Your task to perform on an android device: Open CNN.com Image 0: 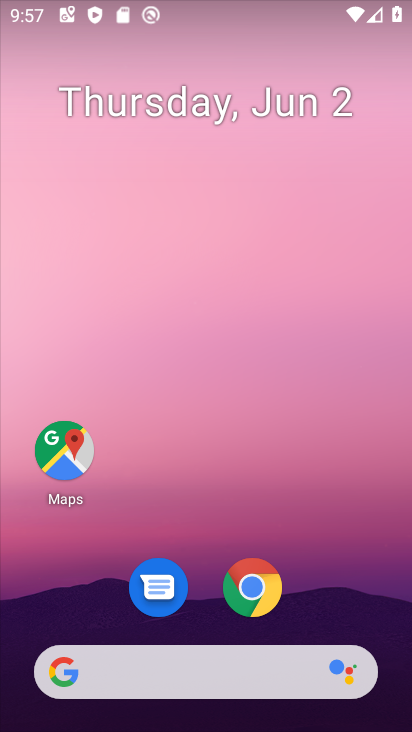
Step 0: click (271, 600)
Your task to perform on an android device: Open CNN.com Image 1: 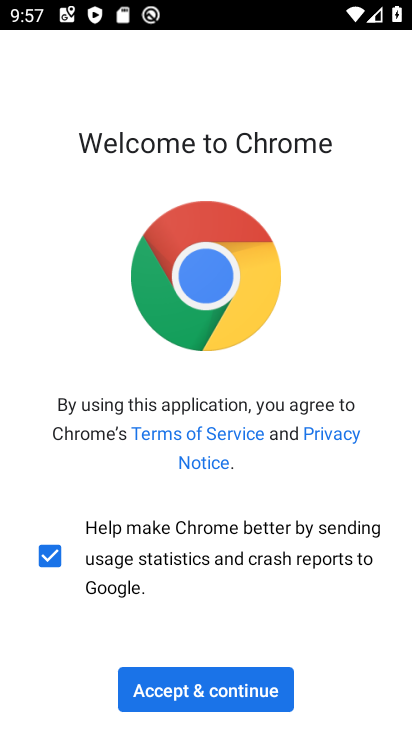
Step 1: click (239, 680)
Your task to perform on an android device: Open CNN.com Image 2: 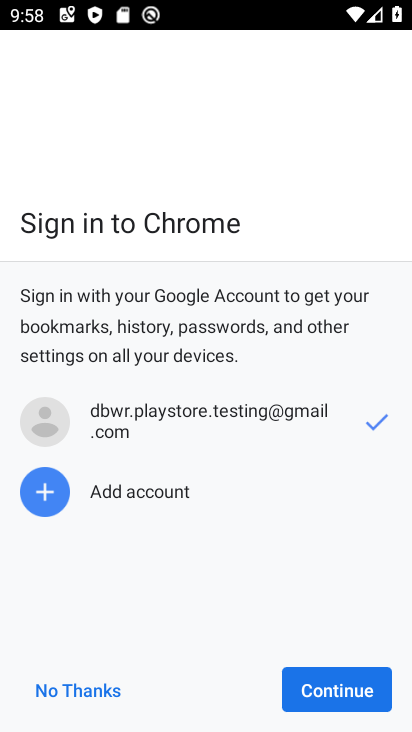
Step 2: click (348, 687)
Your task to perform on an android device: Open CNN.com Image 3: 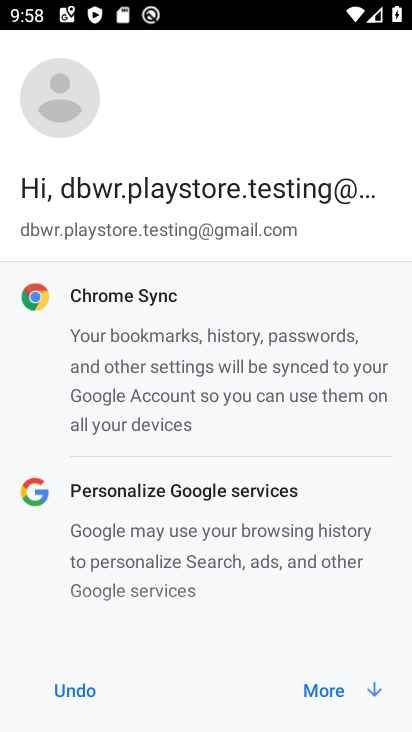
Step 3: click (348, 684)
Your task to perform on an android device: Open CNN.com Image 4: 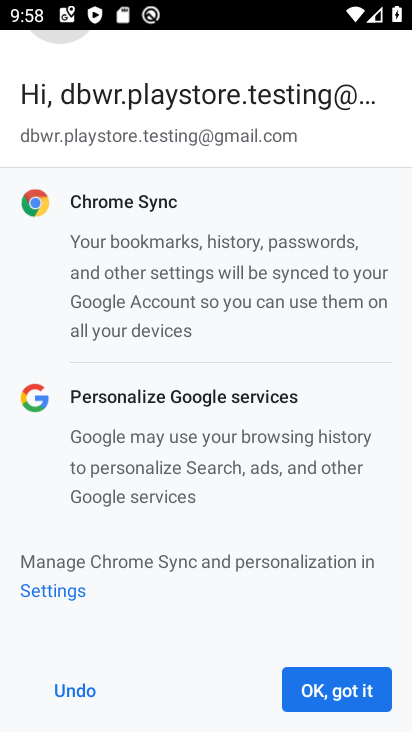
Step 4: click (348, 684)
Your task to perform on an android device: Open CNN.com Image 5: 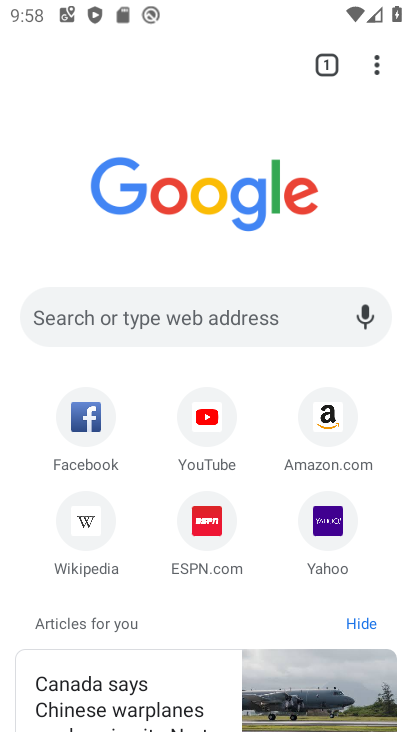
Step 5: click (243, 338)
Your task to perform on an android device: Open CNN.com Image 6: 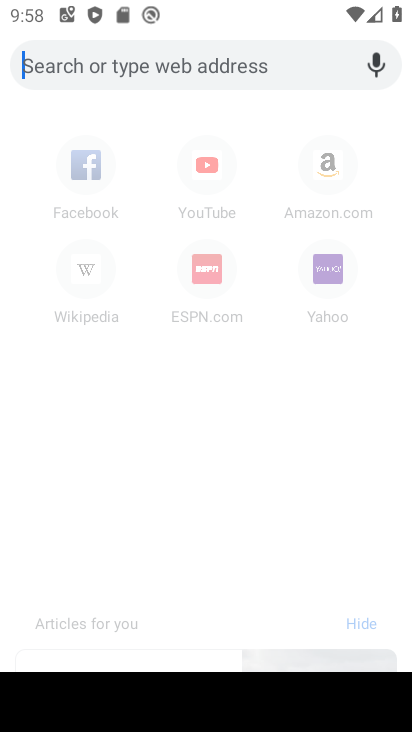
Step 6: type "cnn"
Your task to perform on an android device: Open CNN.com Image 7: 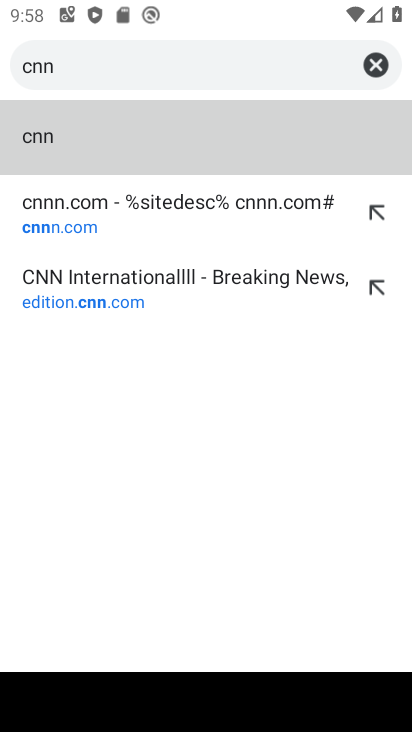
Step 7: click (215, 199)
Your task to perform on an android device: Open CNN.com Image 8: 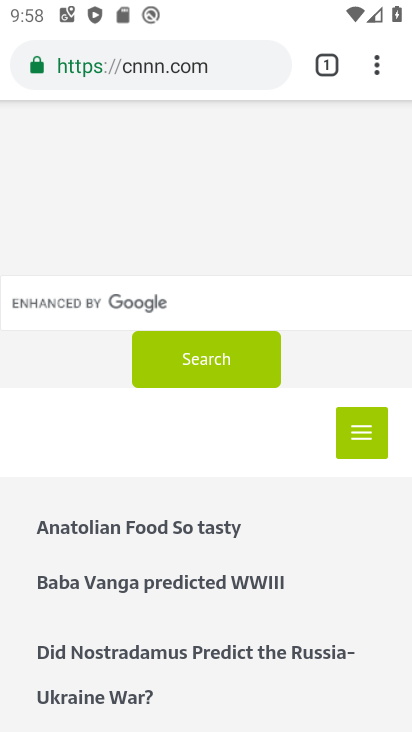
Step 8: drag from (215, 199) to (226, 253)
Your task to perform on an android device: Open CNN.com Image 9: 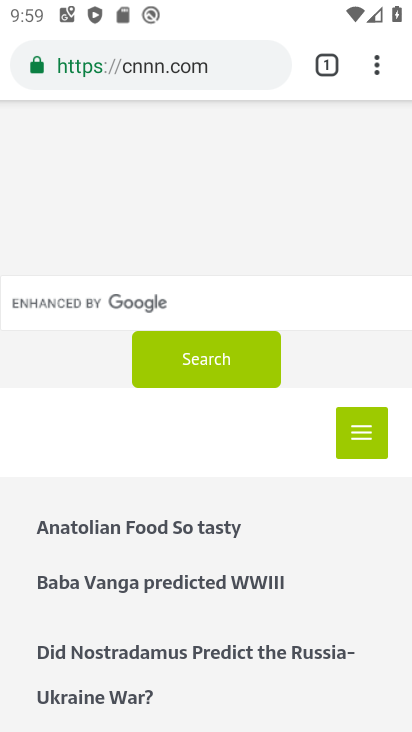
Step 9: click (188, 65)
Your task to perform on an android device: Open CNN.com Image 10: 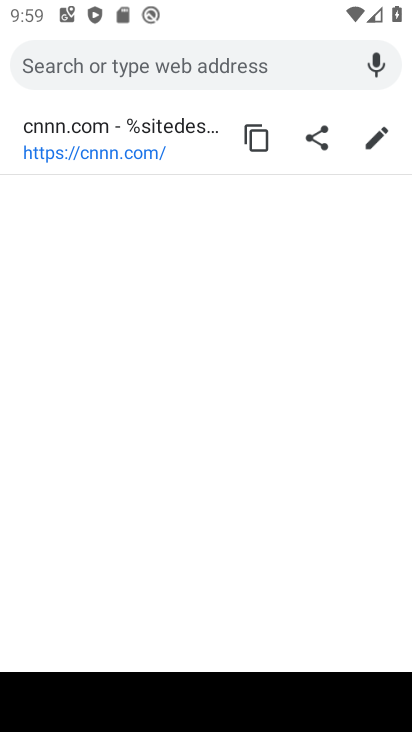
Step 10: type "cnn"
Your task to perform on an android device: Open CNN.com Image 11: 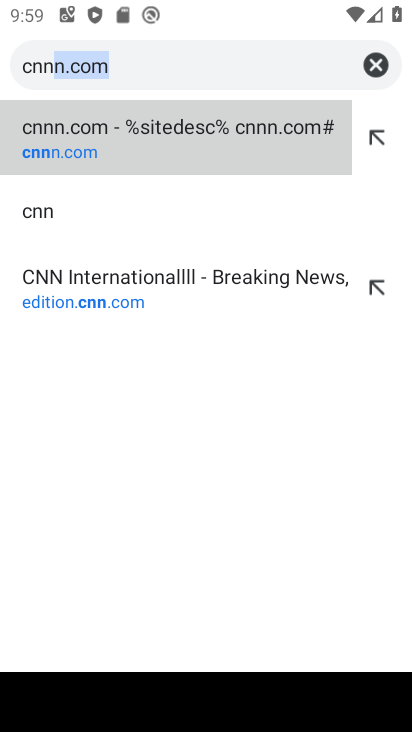
Step 11: click (150, 278)
Your task to perform on an android device: Open CNN.com Image 12: 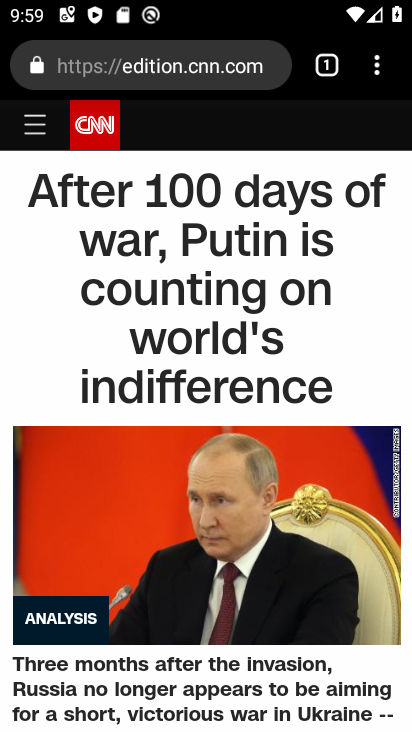
Step 12: click (71, 122)
Your task to perform on an android device: Open CNN.com Image 13: 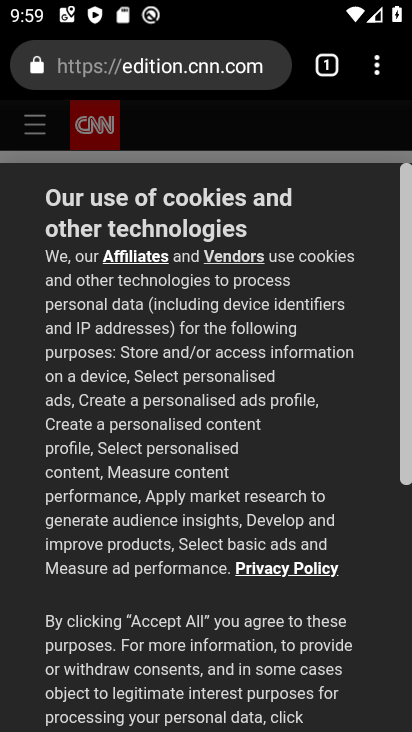
Step 13: click (78, 120)
Your task to perform on an android device: Open CNN.com Image 14: 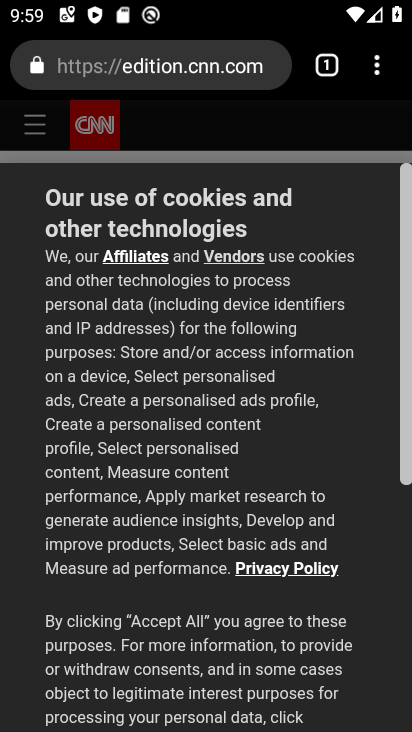
Step 14: task complete